Your task to perform on an android device: Open Chrome and go to settings Image 0: 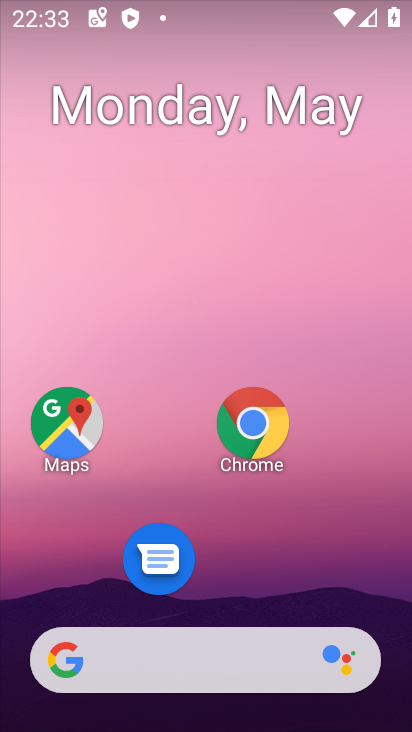
Step 0: click (257, 423)
Your task to perform on an android device: Open Chrome and go to settings Image 1: 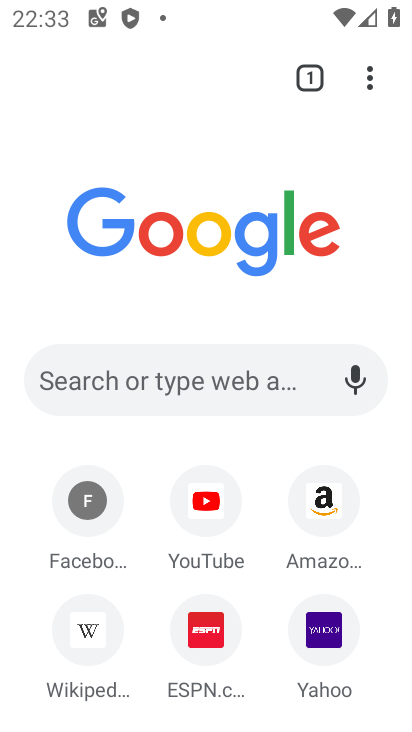
Step 1: click (369, 68)
Your task to perform on an android device: Open Chrome and go to settings Image 2: 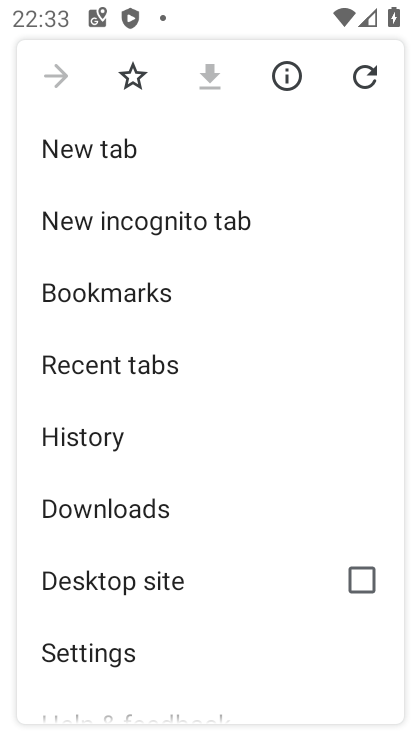
Step 2: click (70, 661)
Your task to perform on an android device: Open Chrome and go to settings Image 3: 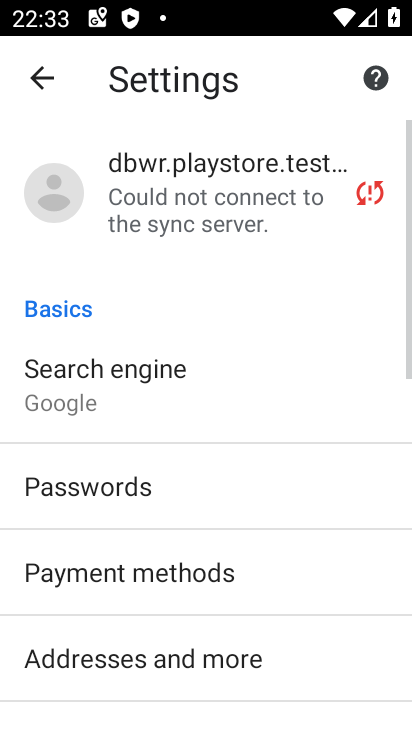
Step 3: task complete